Your task to perform on an android device: turn on the 24-hour format for clock Image 0: 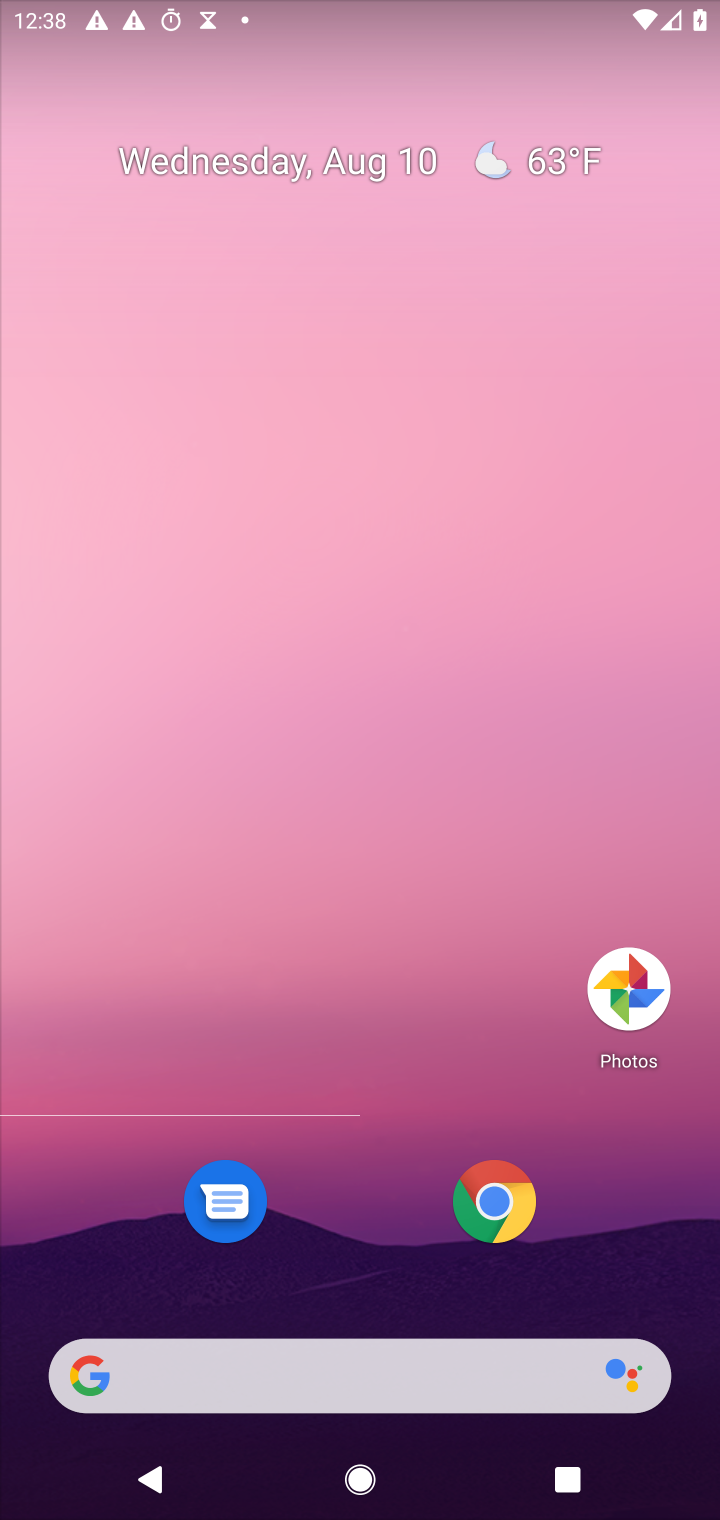
Step 0: press home button
Your task to perform on an android device: turn on the 24-hour format for clock Image 1: 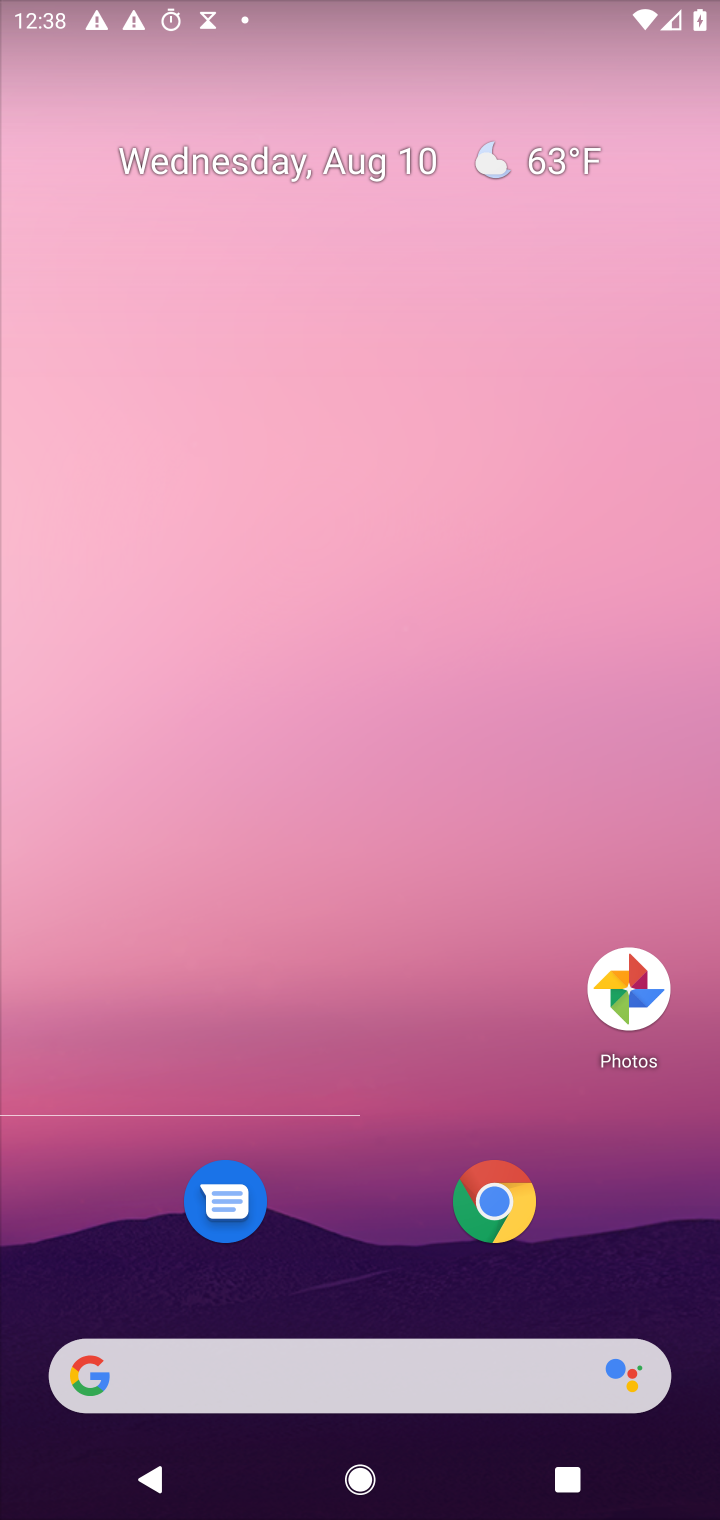
Step 1: drag from (398, 1166) to (352, 272)
Your task to perform on an android device: turn on the 24-hour format for clock Image 2: 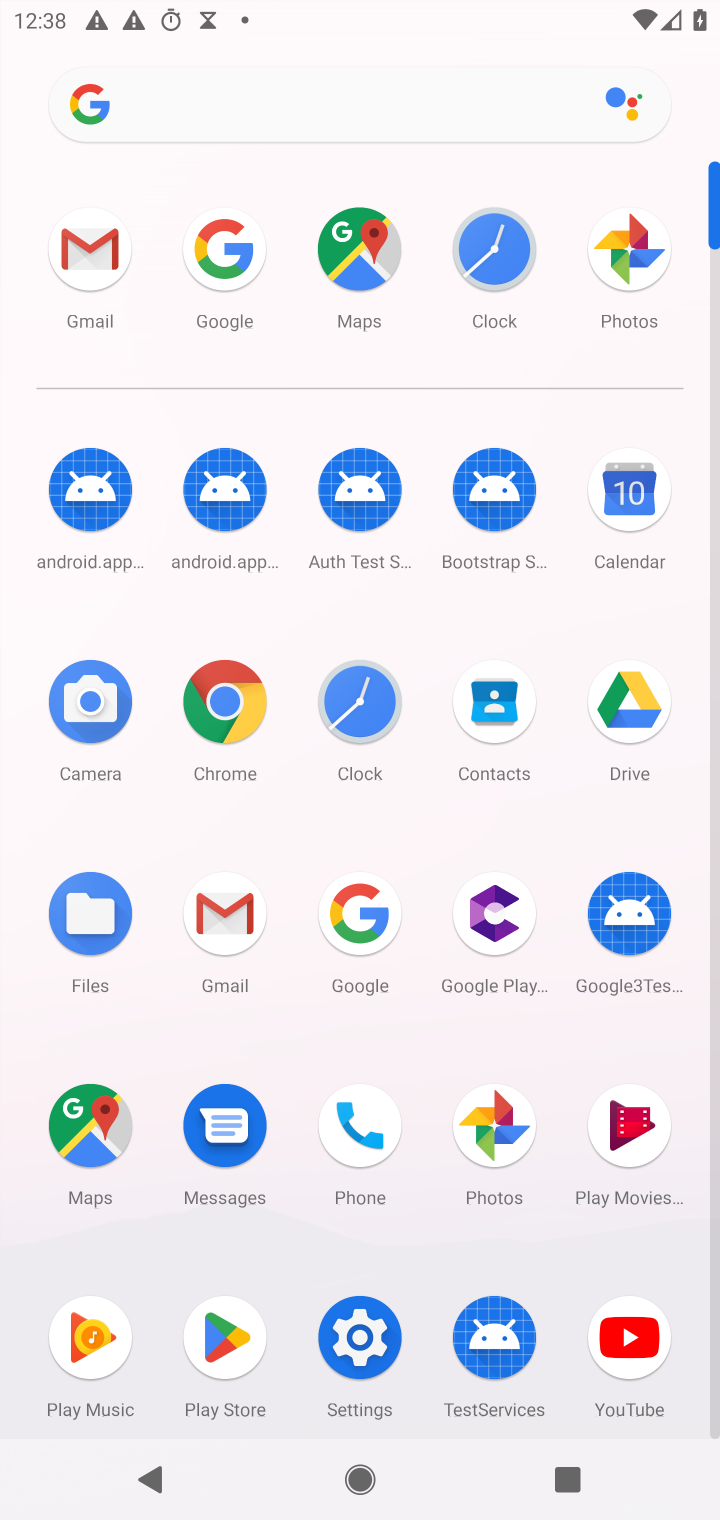
Step 2: click (354, 714)
Your task to perform on an android device: turn on the 24-hour format for clock Image 3: 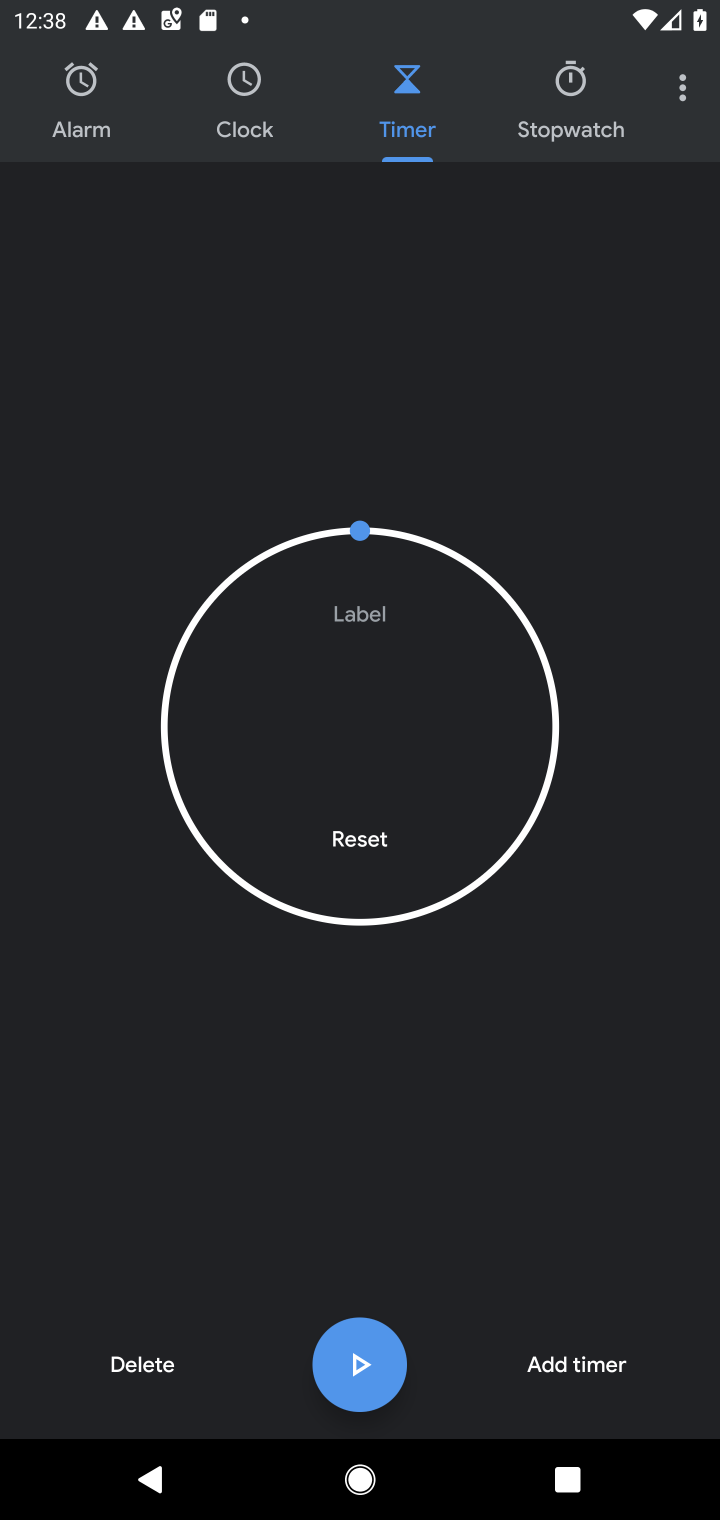
Step 3: click (667, 89)
Your task to perform on an android device: turn on the 24-hour format for clock Image 4: 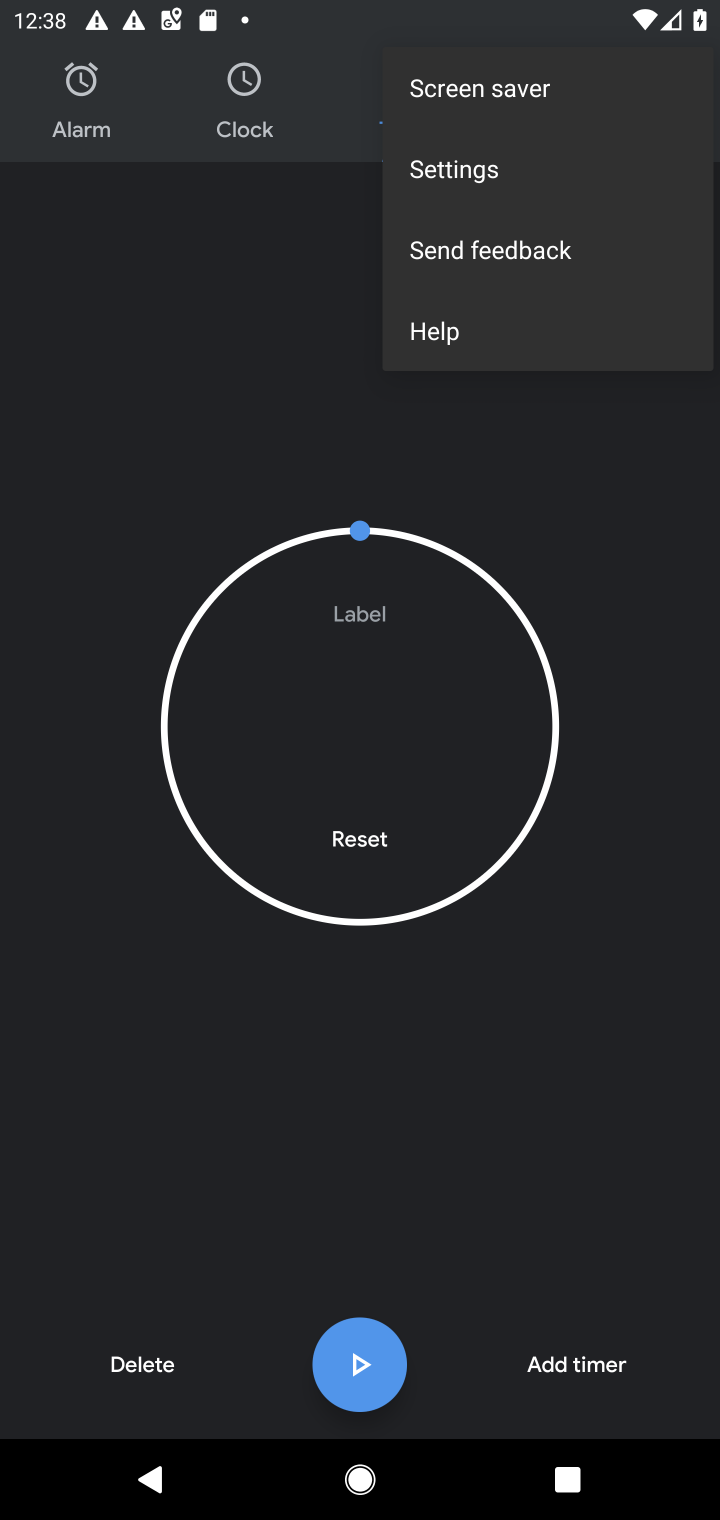
Step 4: click (485, 180)
Your task to perform on an android device: turn on the 24-hour format for clock Image 5: 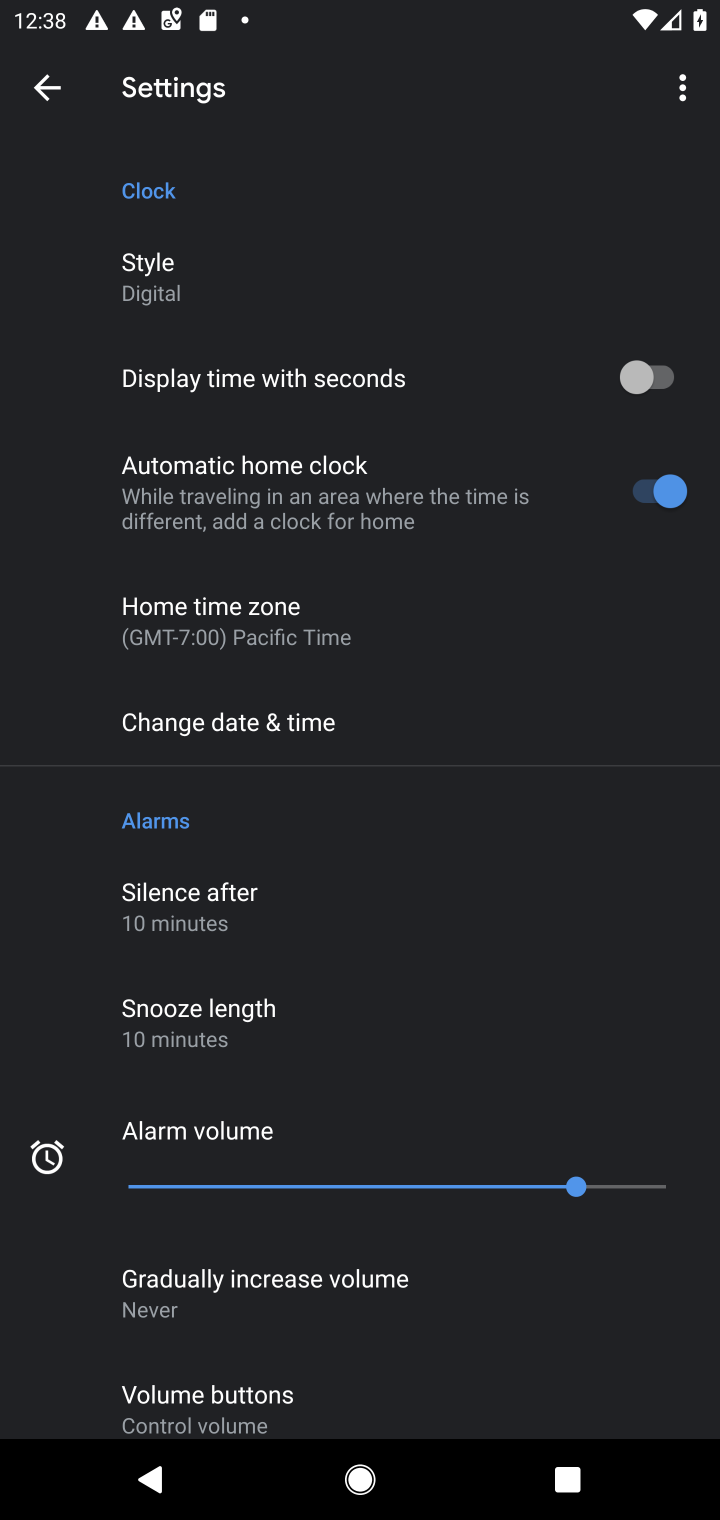
Step 5: click (249, 736)
Your task to perform on an android device: turn on the 24-hour format for clock Image 6: 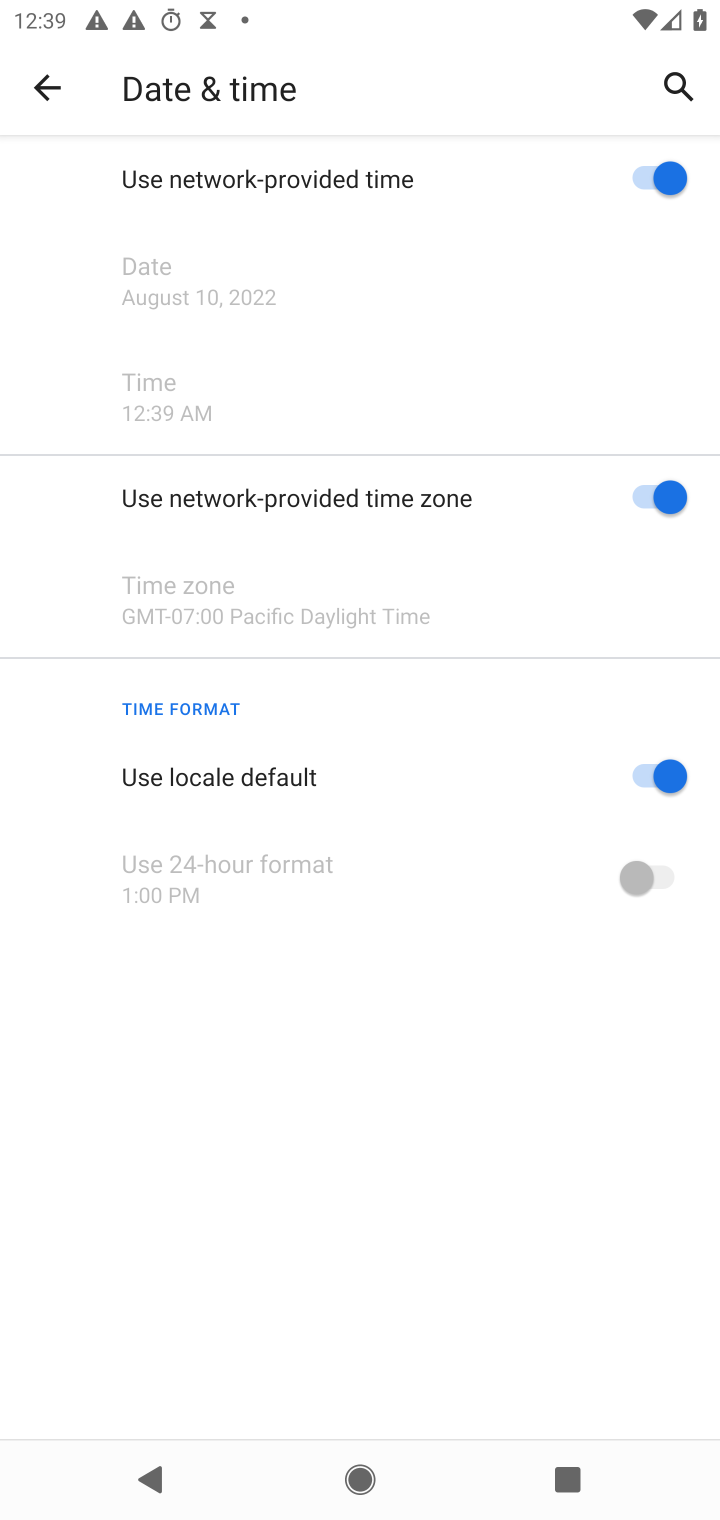
Step 6: click (637, 790)
Your task to perform on an android device: turn on the 24-hour format for clock Image 7: 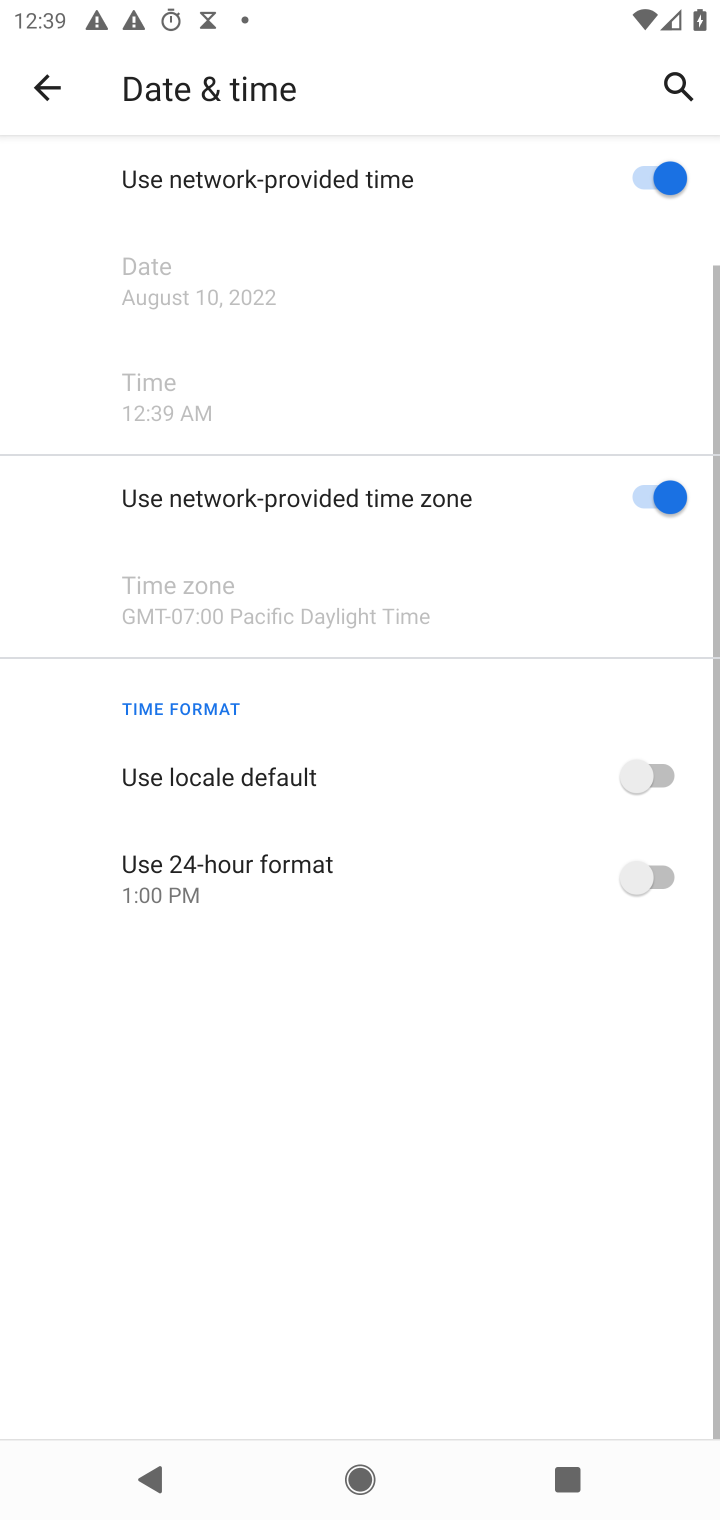
Step 7: click (654, 874)
Your task to perform on an android device: turn on the 24-hour format for clock Image 8: 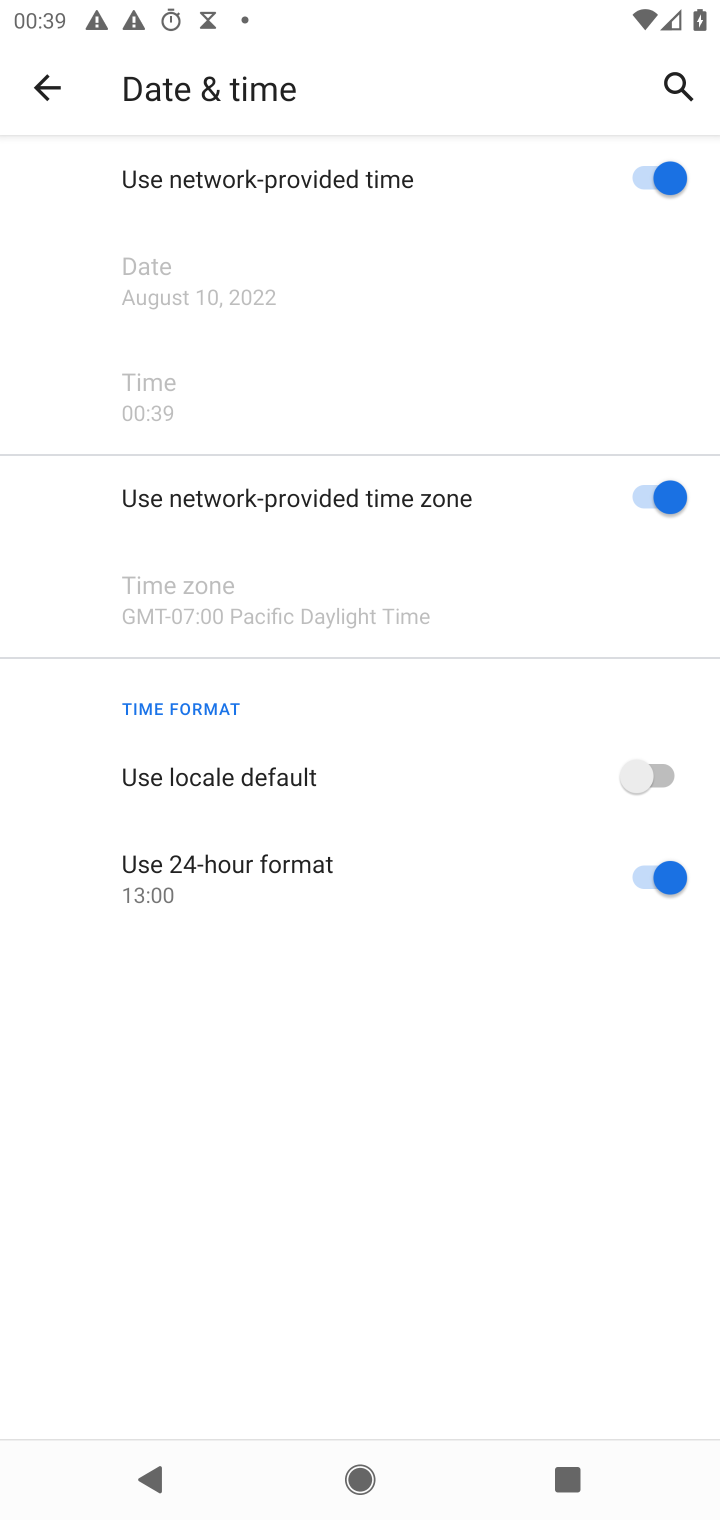
Step 8: task complete